Your task to perform on an android device: change the clock display to show seconds Image 0: 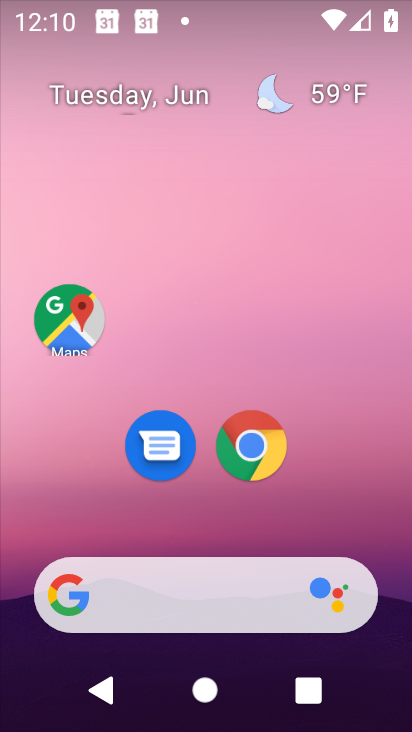
Step 0: drag from (171, 509) to (118, 25)
Your task to perform on an android device: change the clock display to show seconds Image 1: 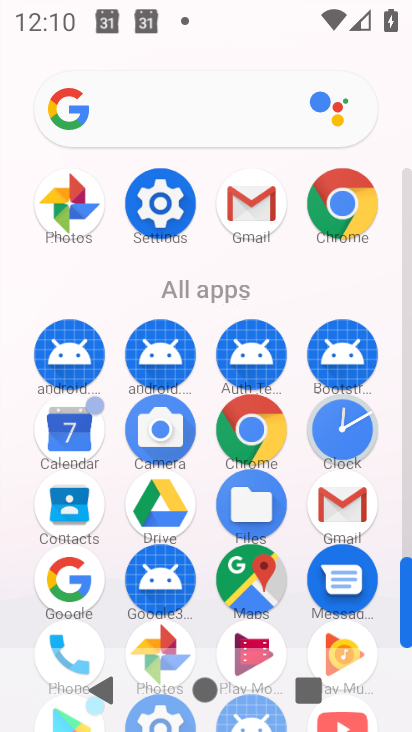
Step 1: click (332, 450)
Your task to perform on an android device: change the clock display to show seconds Image 2: 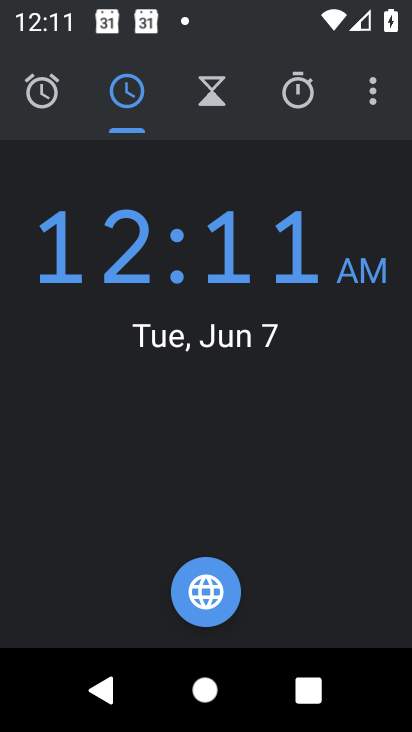
Step 2: click (387, 97)
Your task to perform on an android device: change the clock display to show seconds Image 3: 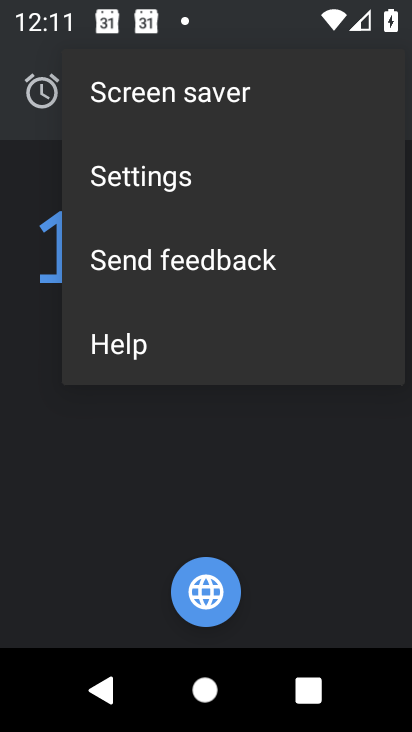
Step 3: click (147, 208)
Your task to perform on an android device: change the clock display to show seconds Image 4: 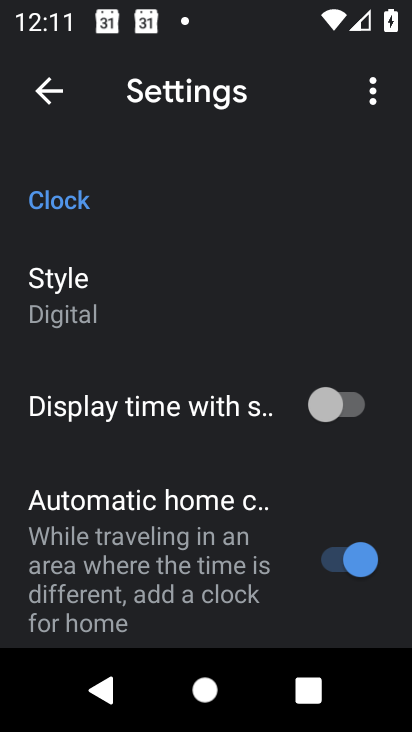
Step 4: click (354, 399)
Your task to perform on an android device: change the clock display to show seconds Image 5: 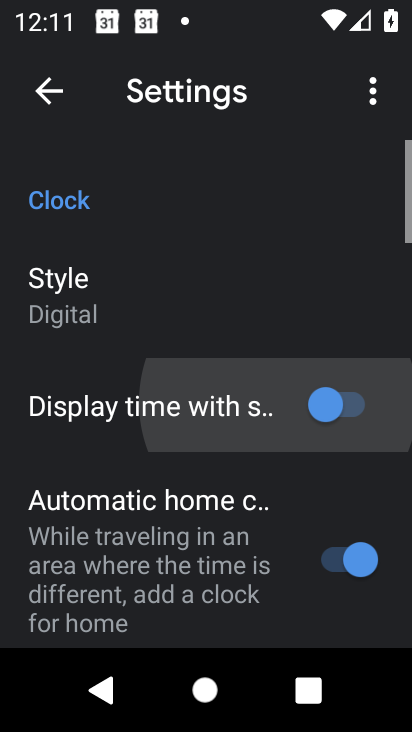
Step 5: click (354, 399)
Your task to perform on an android device: change the clock display to show seconds Image 6: 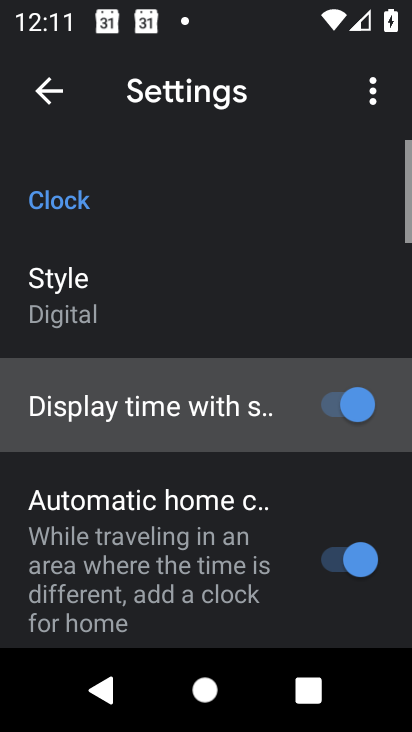
Step 6: click (354, 399)
Your task to perform on an android device: change the clock display to show seconds Image 7: 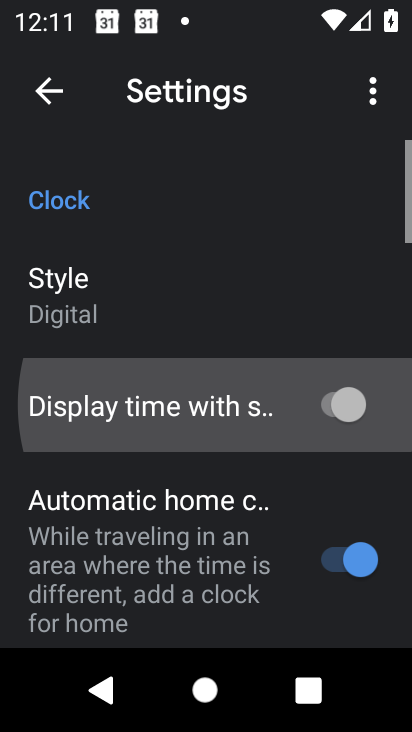
Step 7: click (354, 399)
Your task to perform on an android device: change the clock display to show seconds Image 8: 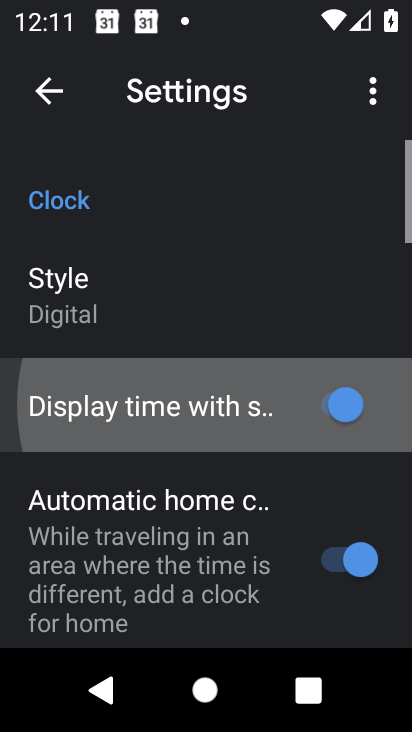
Step 8: click (354, 399)
Your task to perform on an android device: change the clock display to show seconds Image 9: 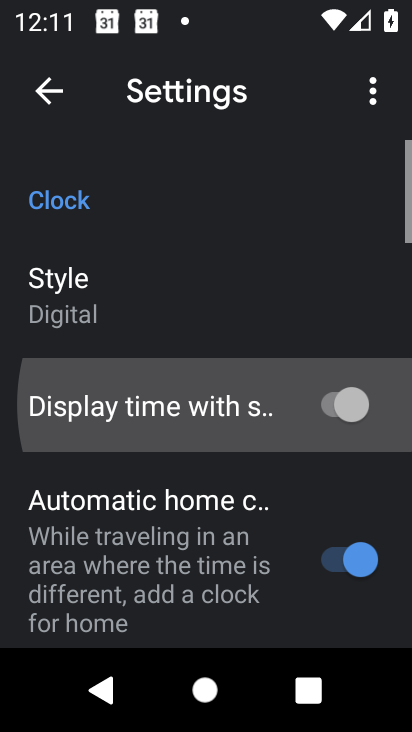
Step 9: click (354, 399)
Your task to perform on an android device: change the clock display to show seconds Image 10: 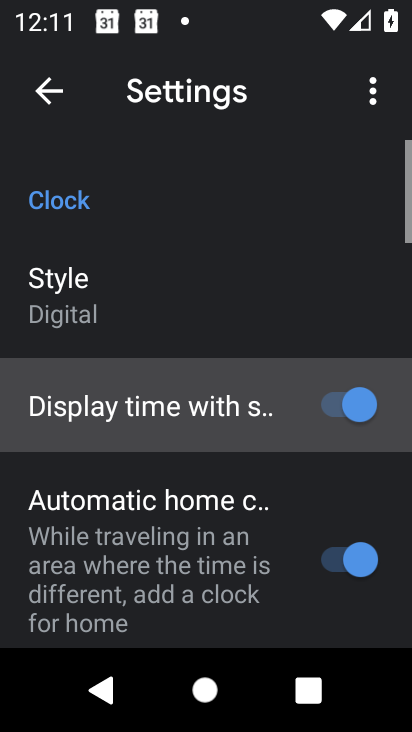
Step 10: click (354, 399)
Your task to perform on an android device: change the clock display to show seconds Image 11: 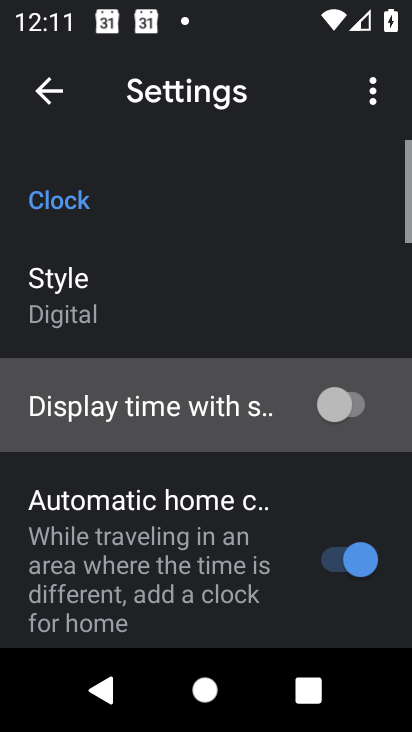
Step 11: click (354, 399)
Your task to perform on an android device: change the clock display to show seconds Image 12: 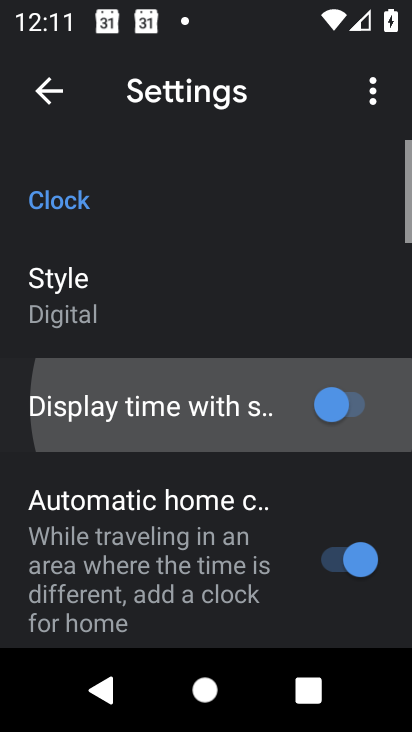
Step 12: click (354, 399)
Your task to perform on an android device: change the clock display to show seconds Image 13: 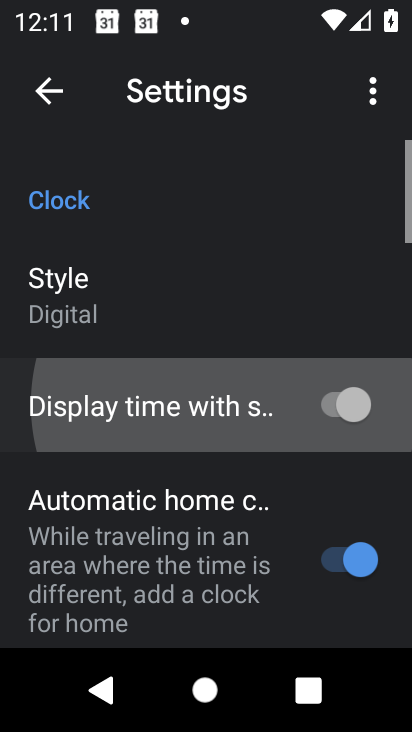
Step 13: click (354, 399)
Your task to perform on an android device: change the clock display to show seconds Image 14: 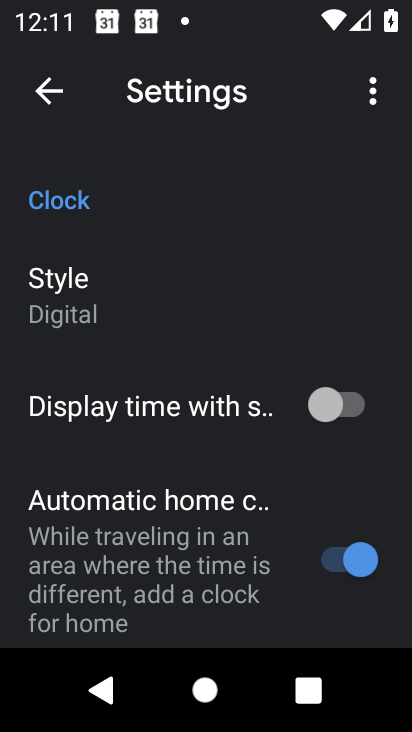
Step 14: task complete